Your task to perform on an android device: snooze an email in the gmail app Image 0: 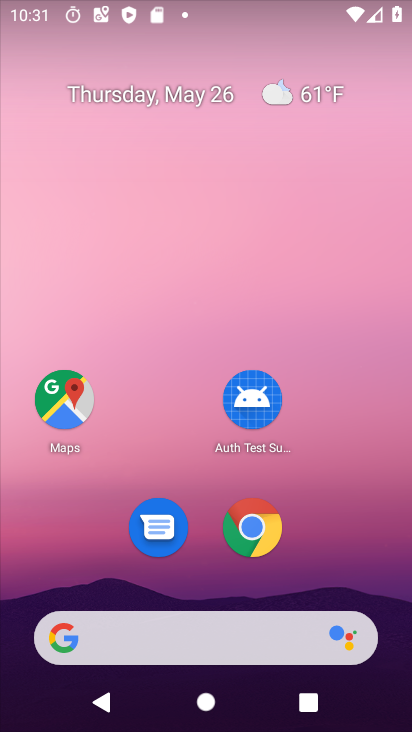
Step 0: drag from (327, 553) to (271, 0)
Your task to perform on an android device: snooze an email in the gmail app Image 1: 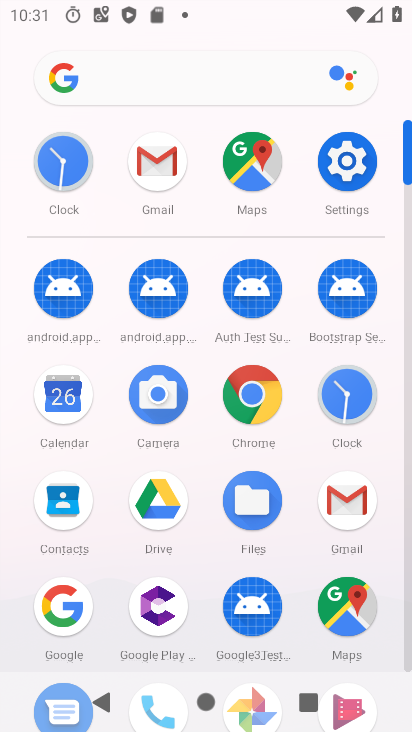
Step 1: click (345, 504)
Your task to perform on an android device: snooze an email in the gmail app Image 2: 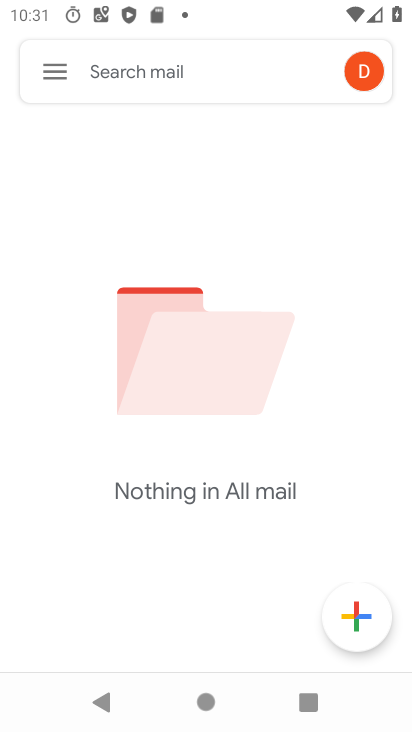
Step 2: click (59, 55)
Your task to perform on an android device: snooze an email in the gmail app Image 3: 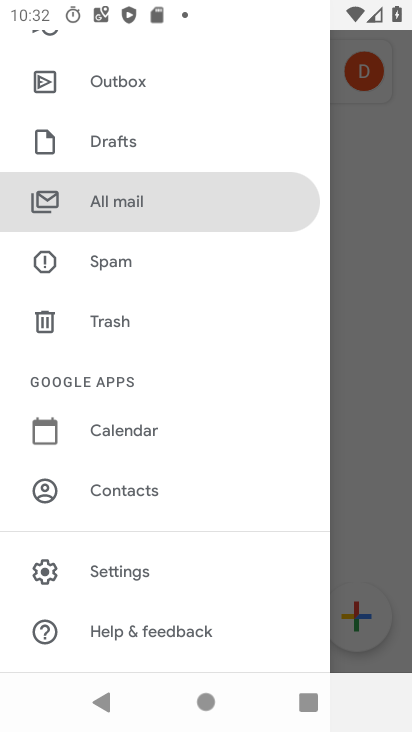
Step 3: click (141, 201)
Your task to perform on an android device: snooze an email in the gmail app Image 4: 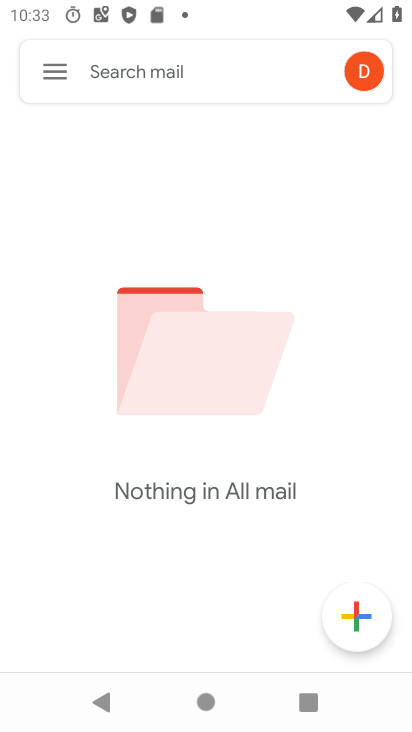
Step 4: task complete